Your task to perform on an android device: What is the recent news? Image 0: 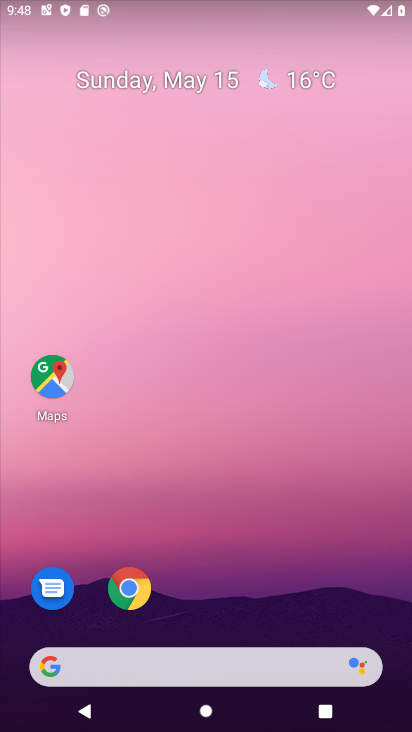
Step 0: drag from (358, 725) to (276, 726)
Your task to perform on an android device: What is the recent news? Image 1: 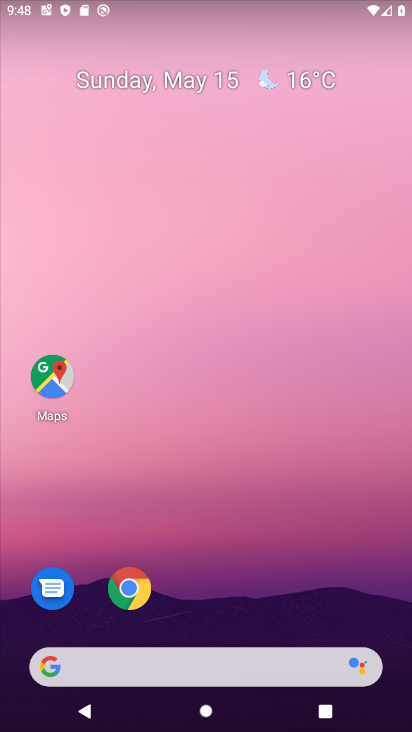
Step 1: click (221, 671)
Your task to perform on an android device: What is the recent news? Image 2: 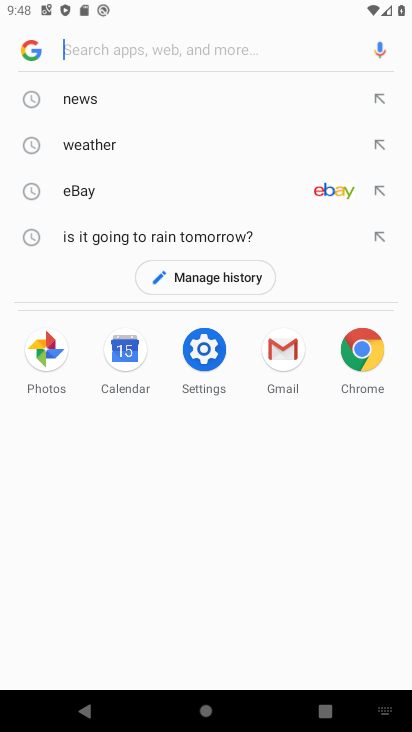
Step 2: type "recent news"
Your task to perform on an android device: What is the recent news? Image 3: 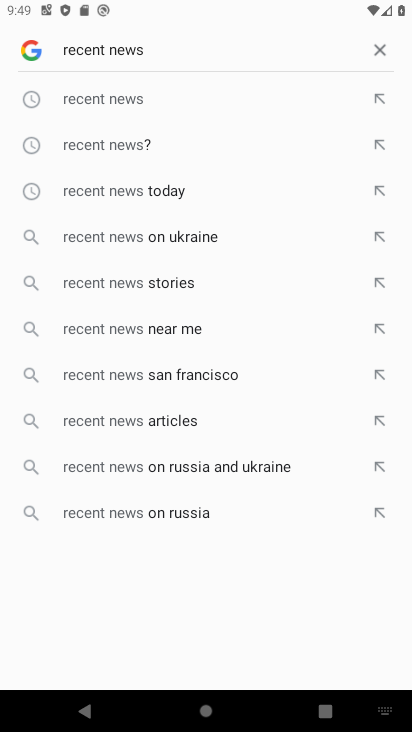
Step 3: click (113, 97)
Your task to perform on an android device: What is the recent news? Image 4: 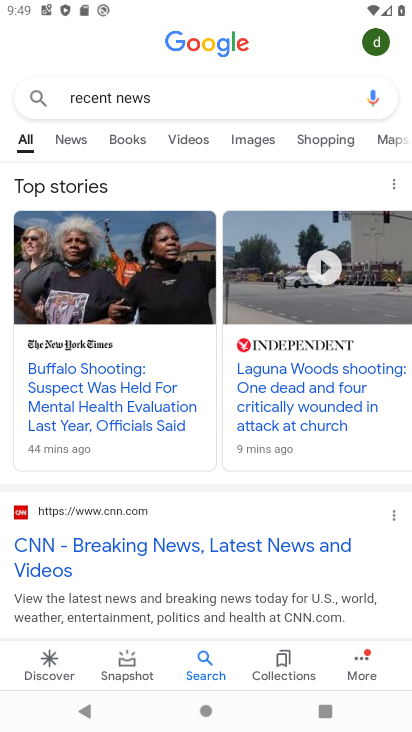
Step 4: task complete